Your task to perform on an android device: Show the shopping cart on walmart. Search for "macbook air" on walmart, select the first entry, add it to the cart, then select checkout. Image 0: 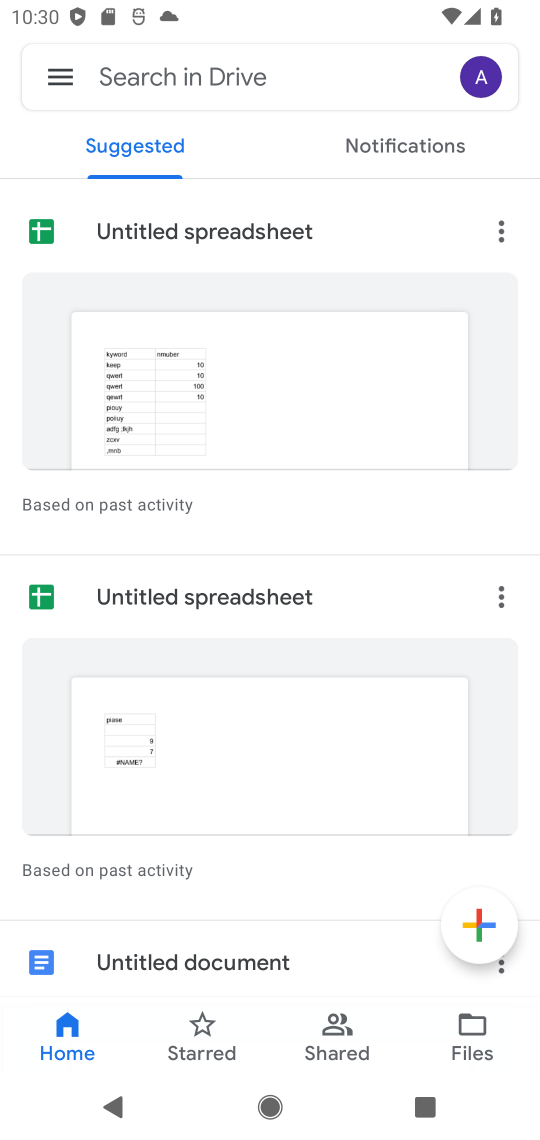
Step 0: press home button
Your task to perform on an android device: Show the shopping cart on walmart. Search for "macbook air" on walmart, select the first entry, add it to the cart, then select checkout. Image 1: 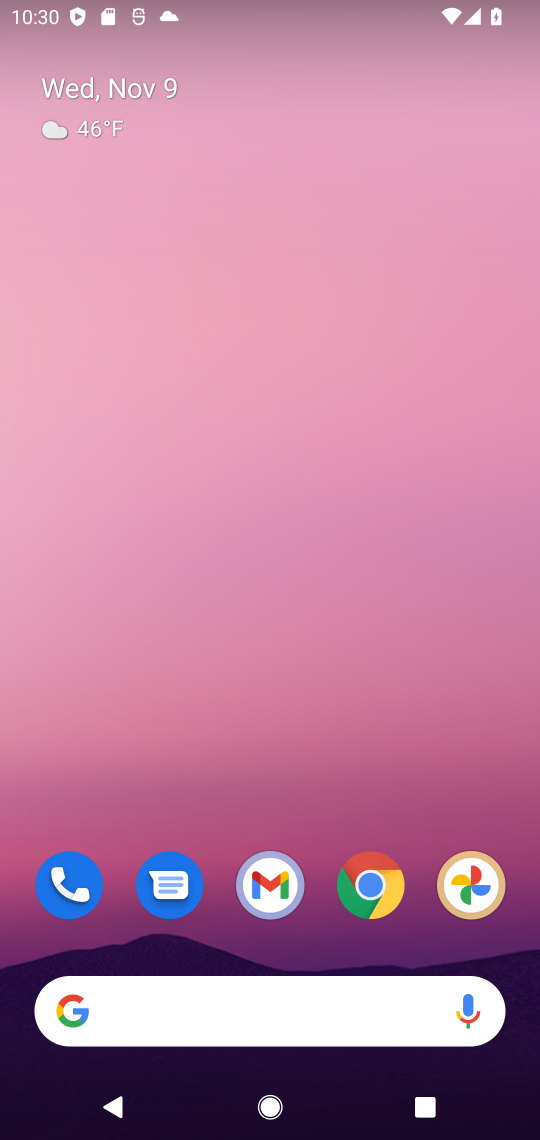
Step 1: click (381, 896)
Your task to perform on an android device: Show the shopping cart on walmart. Search for "macbook air" on walmart, select the first entry, add it to the cart, then select checkout. Image 2: 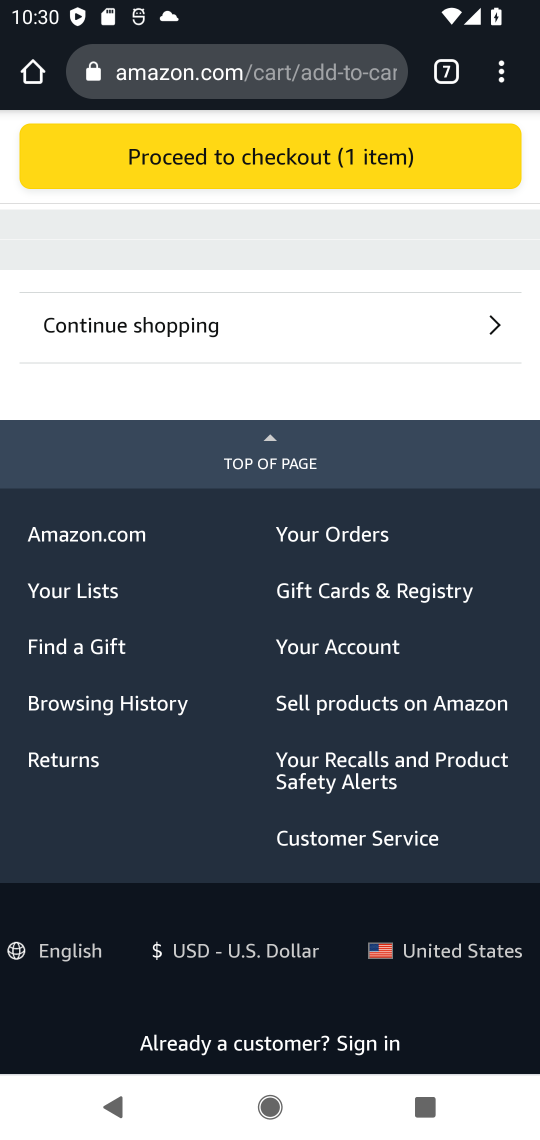
Step 2: click (444, 70)
Your task to perform on an android device: Show the shopping cart on walmart. Search for "macbook air" on walmart, select the first entry, add it to the cart, then select checkout. Image 3: 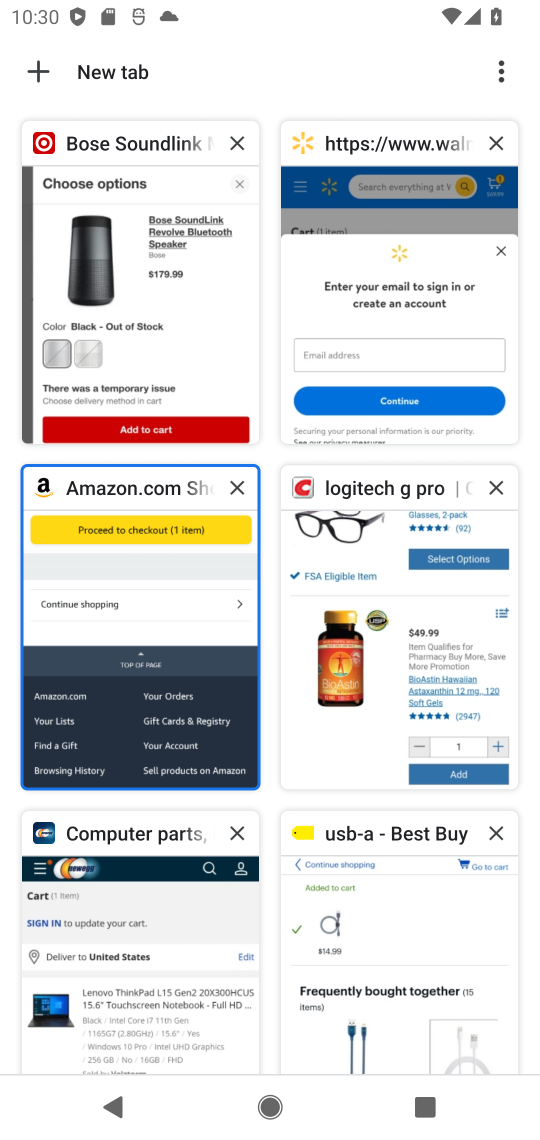
Step 3: click (424, 277)
Your task to perform on an android device: Show the shopping cart on walmart. Search for "macbook air" on walmart, select the first entry, add it to the cart, then select checkout. Image 4: 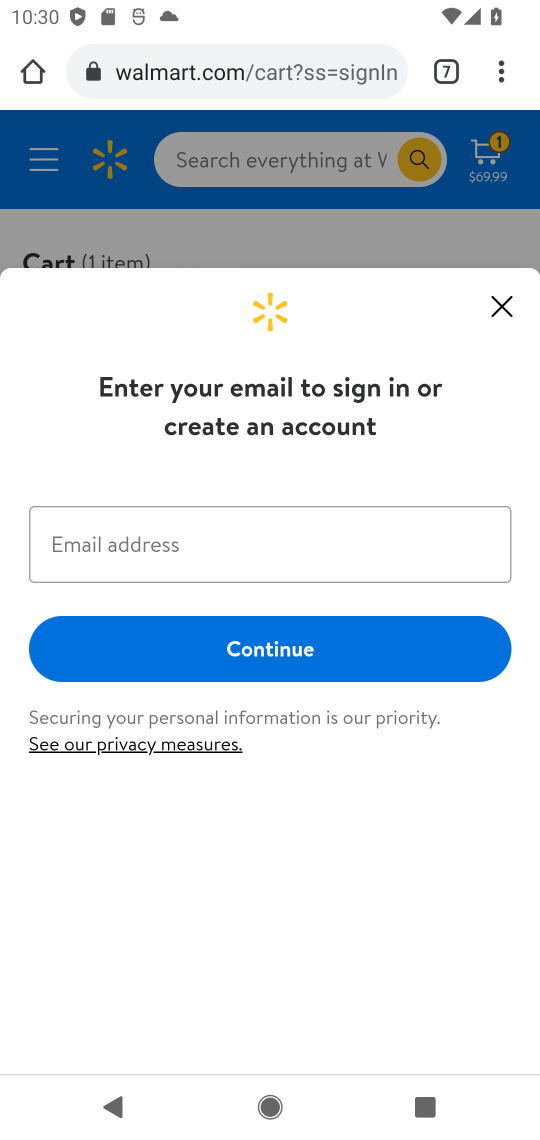
Step 4: click (500, 298)
Your task to perform on an android device: Show the shopping cart on walmart. Search for "macbook air" on walmart, select the first entry, add it to the cart, then select checkout. Image 5: 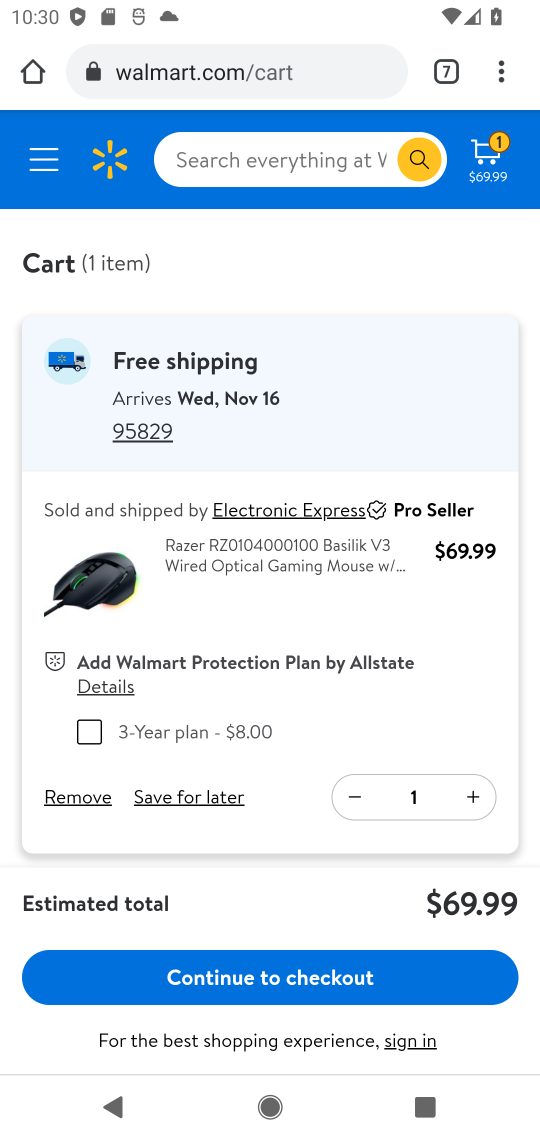
Step 5: click (305, 162)
Your task to perform on an android device: Show the shopping cart on walmart. Search for "macbook air" on walmart, select the first entry, add it to the cart, then select checkout. Image 6: 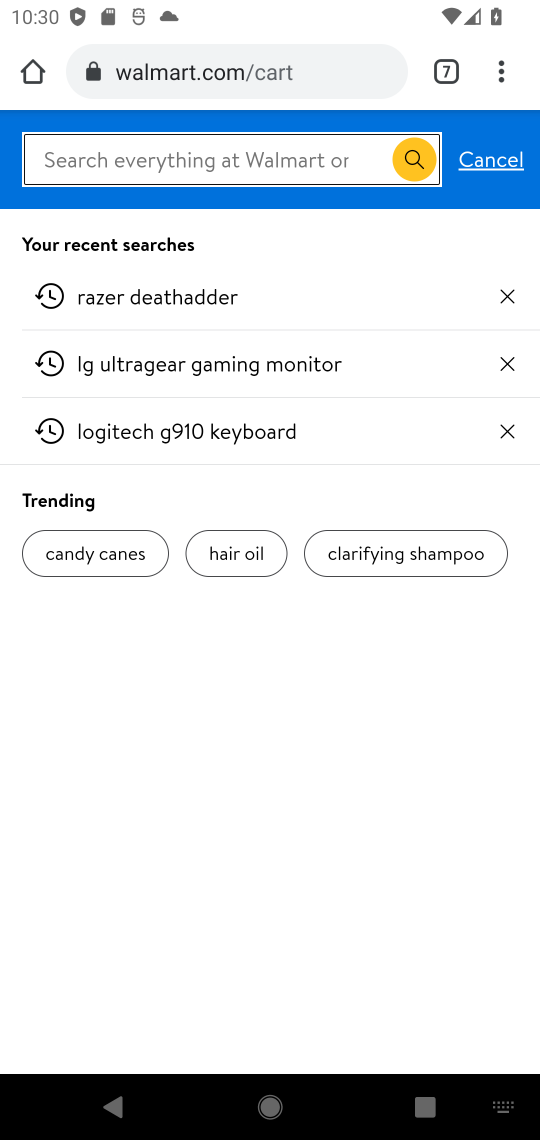
Step 6: type "macbook air"
Your task to perform on an android device: Show the shopping cart on walmart. Search for "macbook air" on walmart, select the first entry, add it to the cart, then select checkout. Image 7: 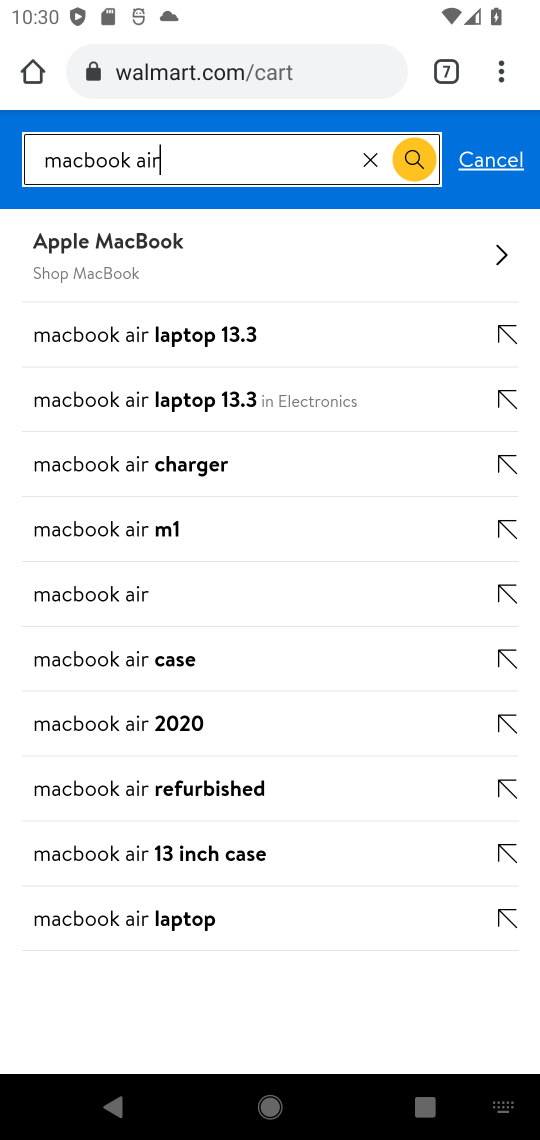
Step 7: click (193, 400)
Your task to perform on an android device: Show the shopping cart on walmart. Search for "macbook air" on walmart, select the first entry, add it to the cart, then select checkout. Image 8: 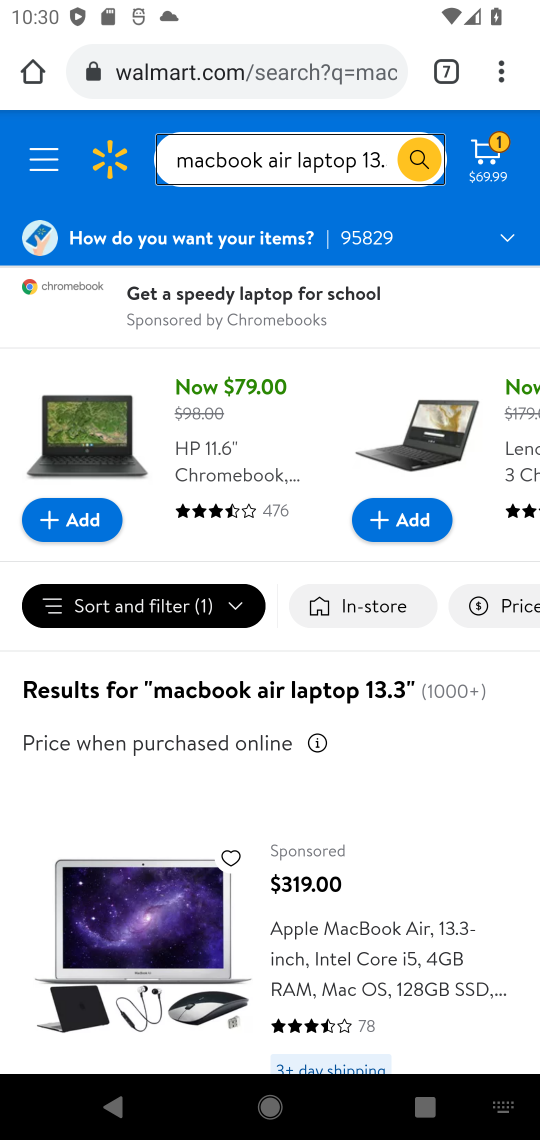
Step 8: drag from (409, 830) to (515, 415)
Your task to perform on an android device: Show the shopping cart on walmart. Search for "macbook air" on walmart, select the first entry, add it to the cart, then select checkout. Image 9: 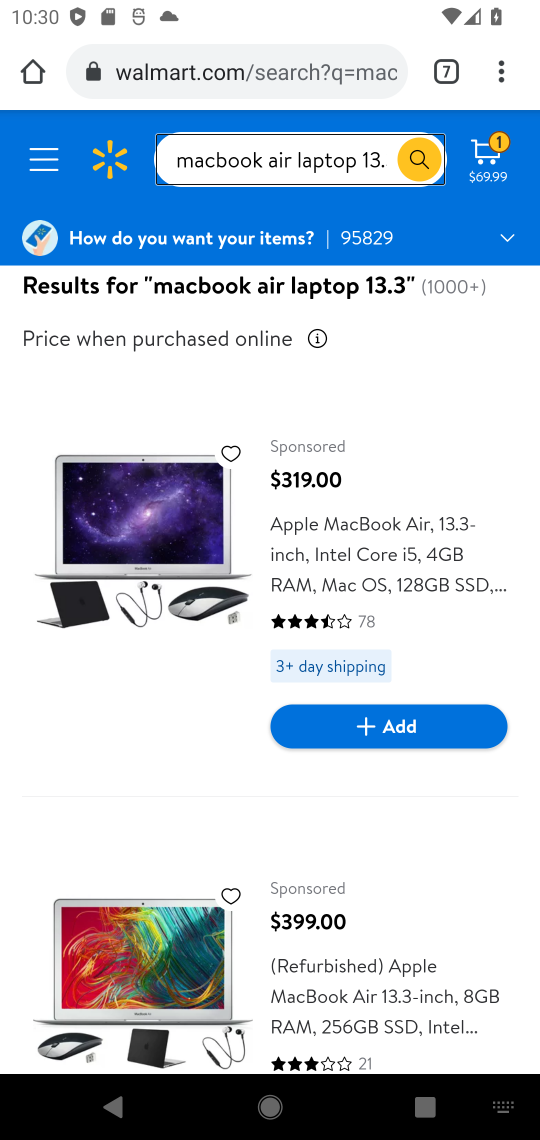
Step 9: click (403, 723)
Your task to perform on an android device: Show the shopping cart on walmart. Search for "macbook air" on walmart, select the first entry, add it to the cart, then select checkout. Image 10: 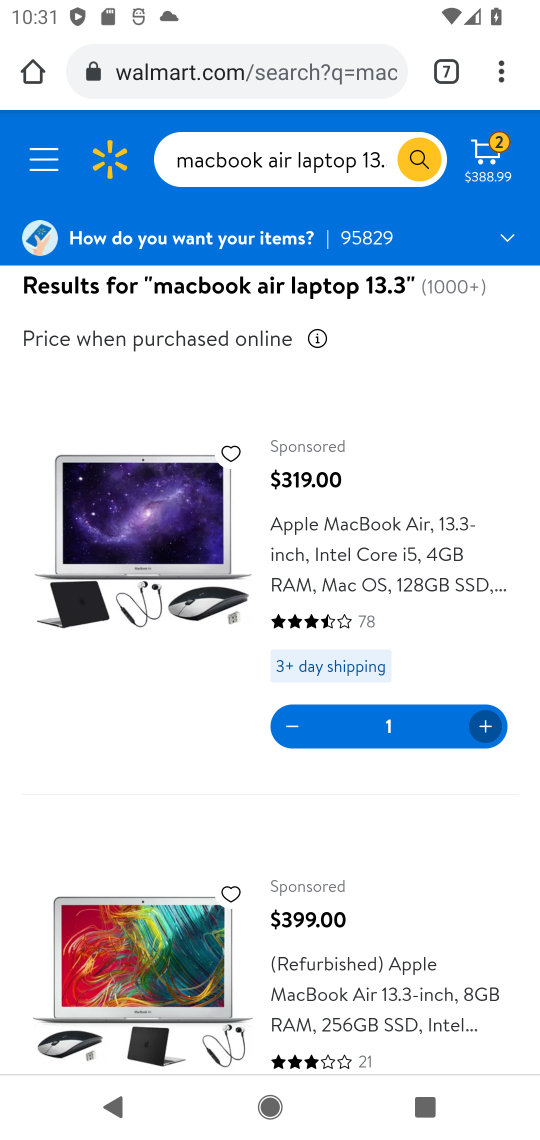
Step 10: task complete